Your task to perform on an android device: check storage Image 0: 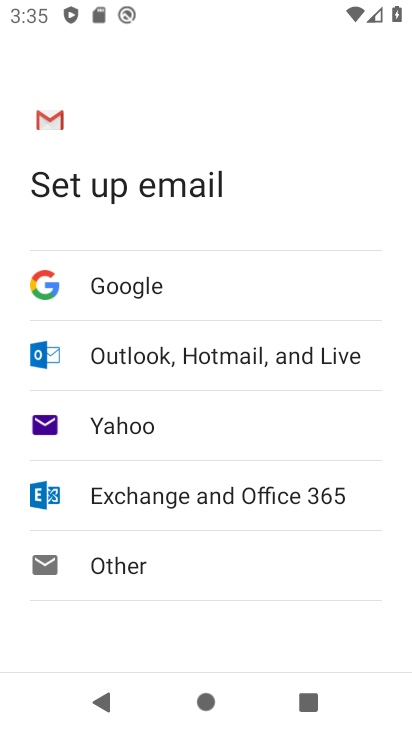
Step 0: press home button
Your task to perform on an android device: check storage Image 1: 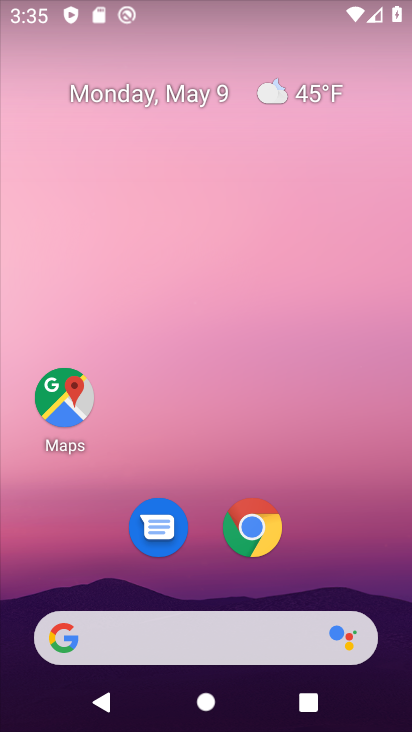
Step 1: drag from (380, 564) to (336, 364)
Your task to perform on an android device: check storage Image 2: 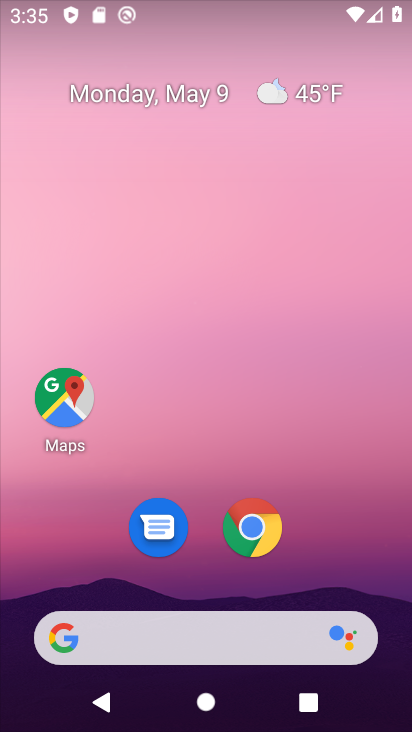
Step 2: drag from (406, 639) to (345, 304)
Your task to perform on an android device: check storage Image 3: 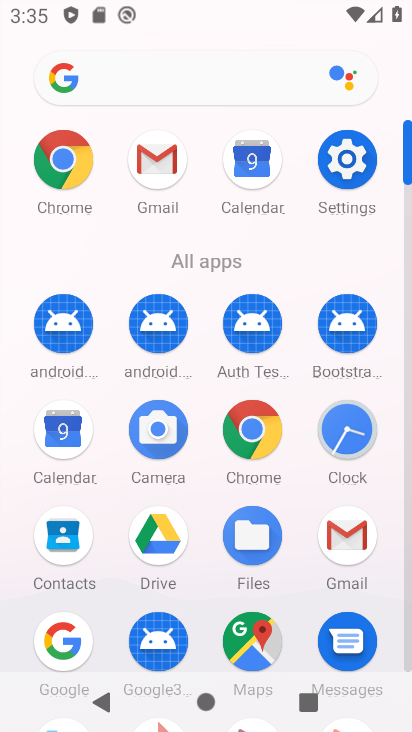
Step 3: click (367, 155)
Your task to perform on an android device: check storage Image 4: 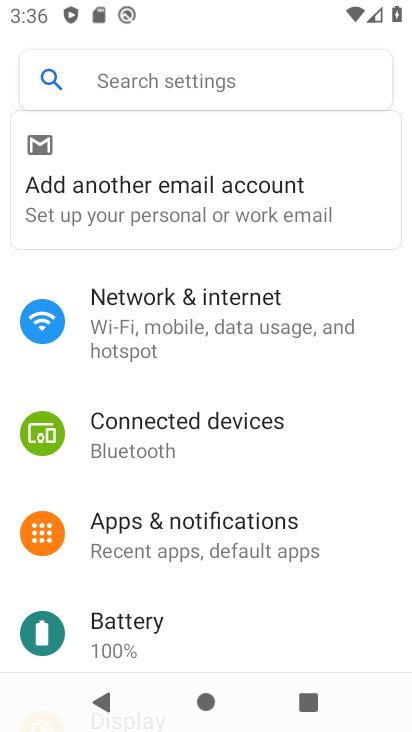
Step 4: drag from (260, 621) to (284, 284)
Your task to perform on an android device: check storage Image 5: 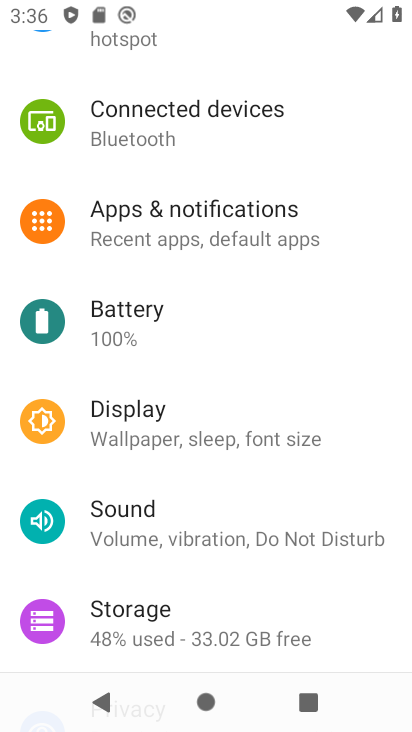
Step 5: click (298, 623)
Your task to perform on an android device: check storage Image 6: 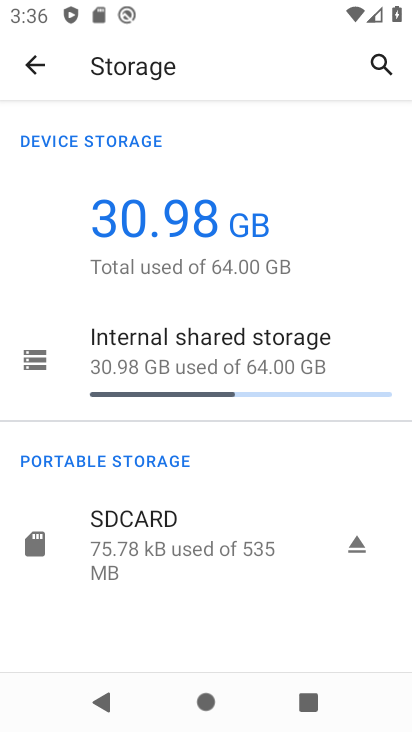
Step 6: task complete